Your task to perform on an android device: turn on data saver in the chrome app Image 0: 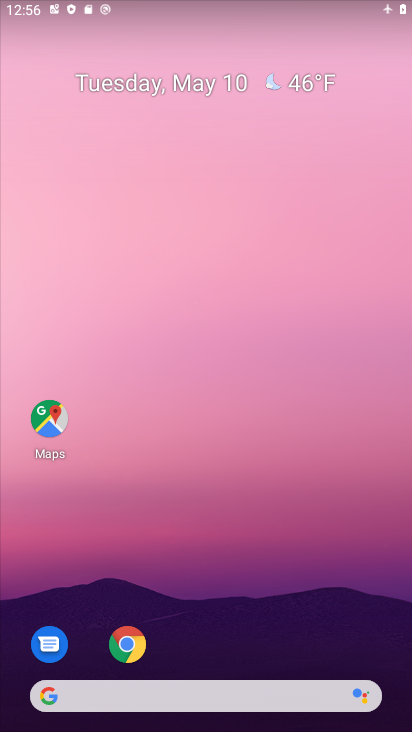
Step 0: drag from (305, 653) to (286, 342)
Your task to perform on an android device: turn on data saver in the chrome app Image 1: 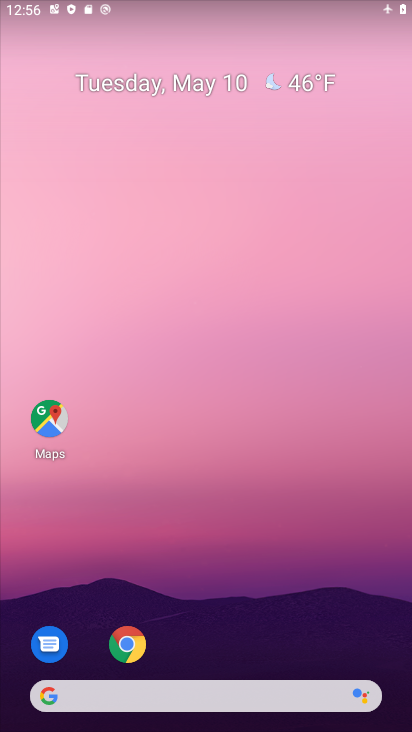
Step 1: drag from (245, 648) to (258, 234)
Your task to perform on an android device: turn on data saver in the chrome app Image 2: 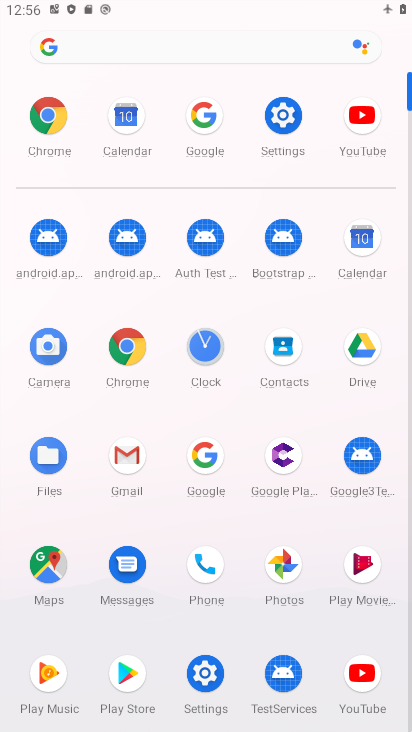
Step 2: click (131, 367)
Your task to perform on an android device: turn on data saver in the chrome app Image 3: 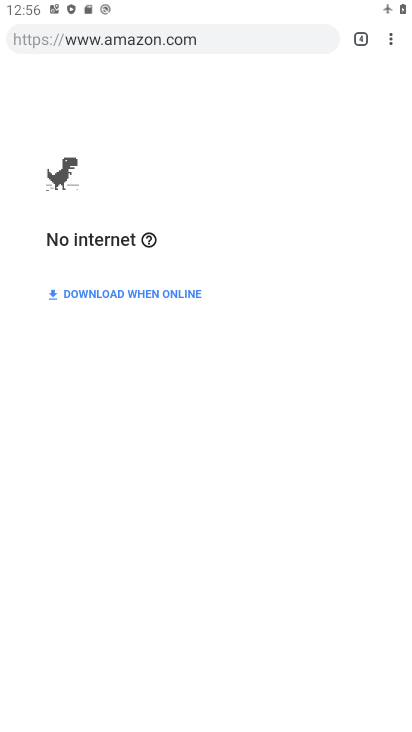
Step 3: click (399, 49)
Your task to perform on an android device: turn on data saver in the chrome app Image 4: 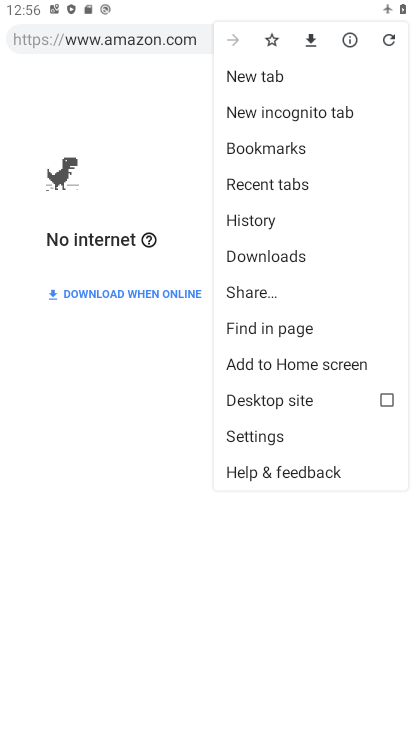
Step 4: click (295, 436)
Your task to perform on an android device: turn on data saver in the chrome app Image 5: 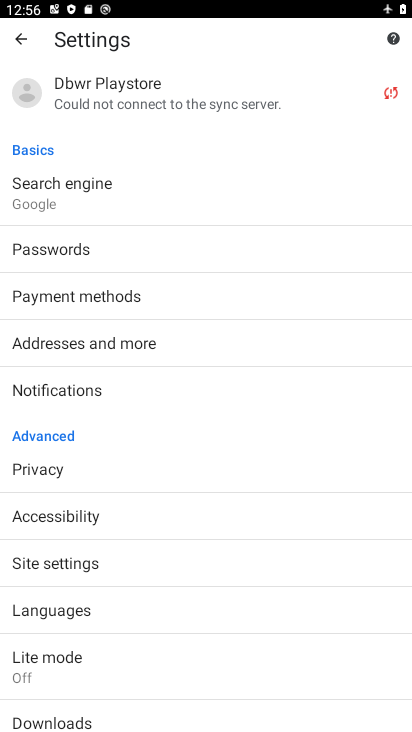
Step 5: click (105, 648)
Your task to perform on an android device: turn on data saver in the chrome app Image 6: 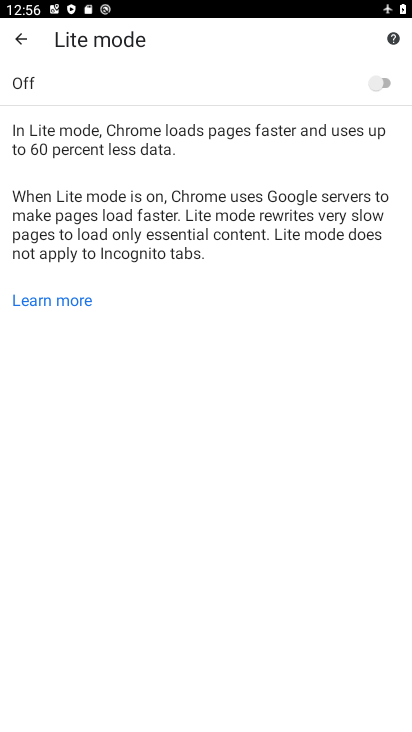
Step 6: click (368, 85)
Your task to perform on an android device: turn on data saver in the chrome app Image 7: 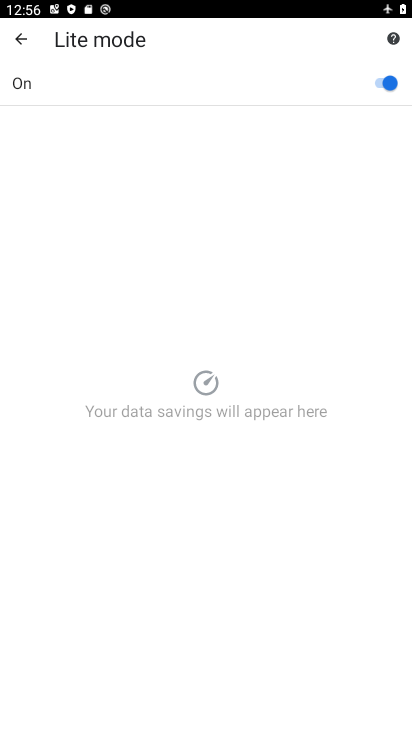
Step 7: task complete